Your task to perform on an android device: Find coffee shops on Maps Image 0: 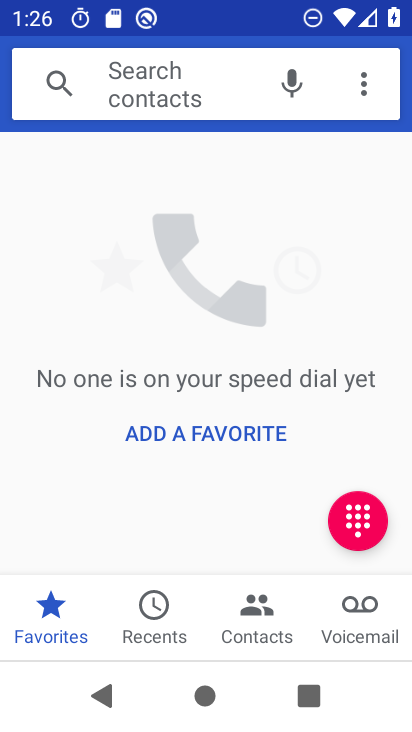
Step 0: press back button
Your task to perform on an android device: Find coffee shops on Maps Image 1: 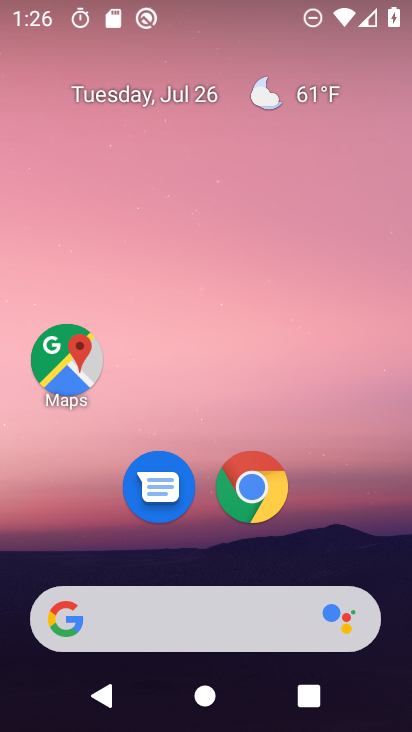
Step 1: click (56, 365)
Your task to perform on an android device: Find coffee shops on Maps Image 2: 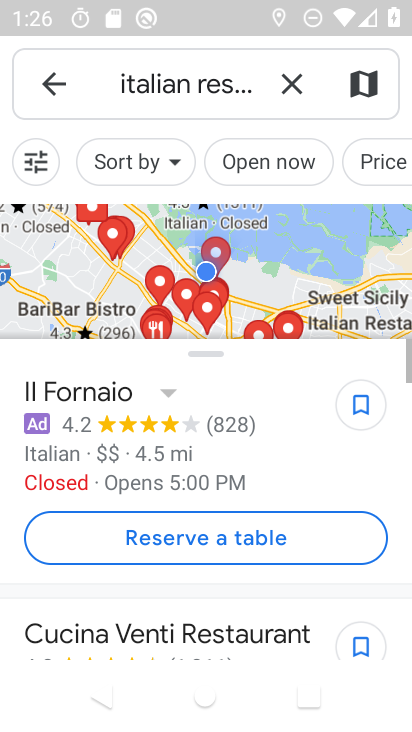
Step 2: click (294, 94)
Your task to perform on an android device: Find coffee shops on Maps Image 3: 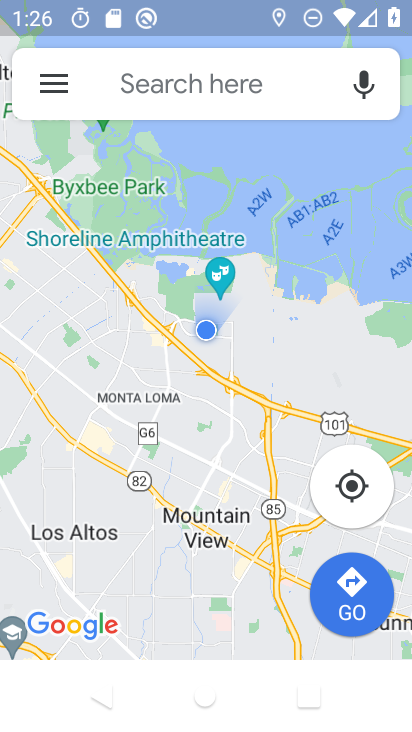
Step 3: click (193, 80)
Your task to perform on an android device: Find coffee shops on Maps Image 4: 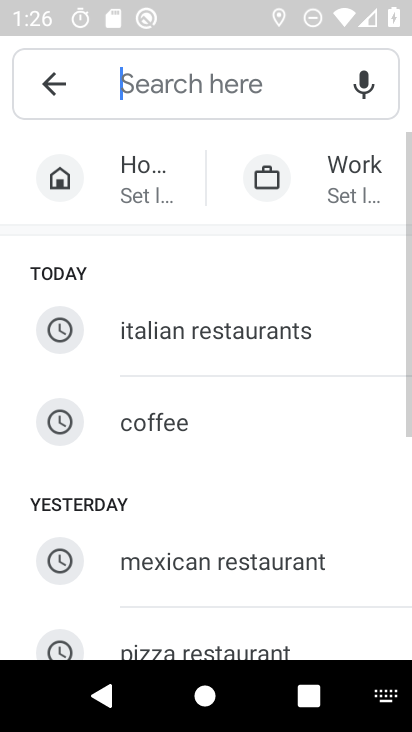
Step 4: click (170, 425)
Your task to perform on an android device: Find coffee shops on Maps Image 5: 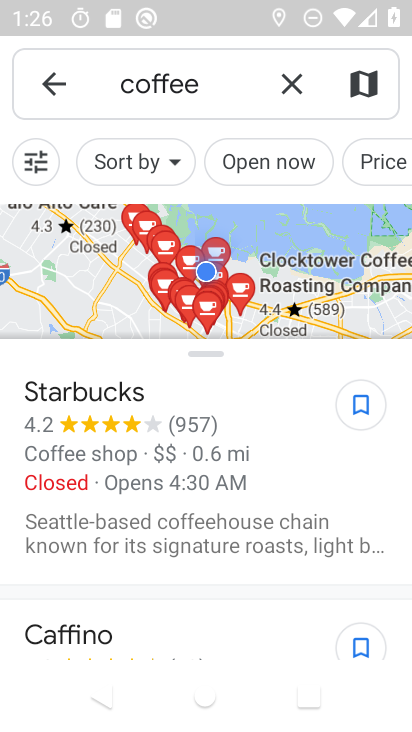
Step 5: task complete